Your task to perform on an android device: move an email to a new category in the gmail app Image 0: 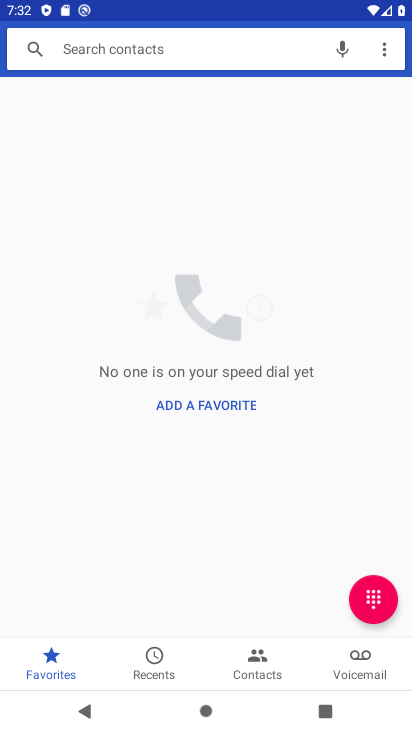
Step 0: press home button
Your task to perform on an android device: move an email to a new category in the gmail app Image 1: 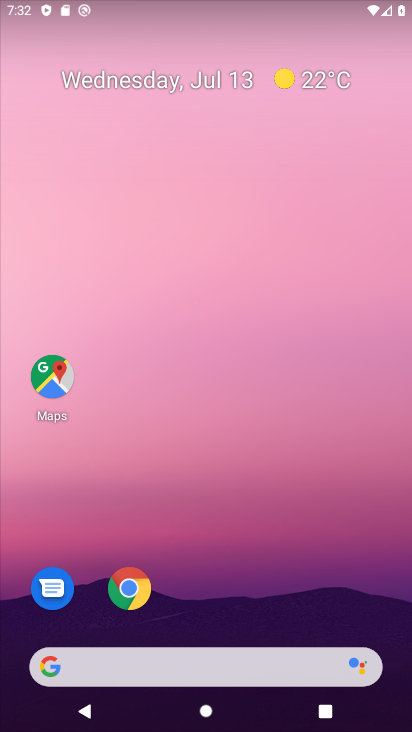
Step 1: drag from (223, 620) to (244, 293)
Your task to perform on an android device: move an email to a new category in the gmail app Image 2: 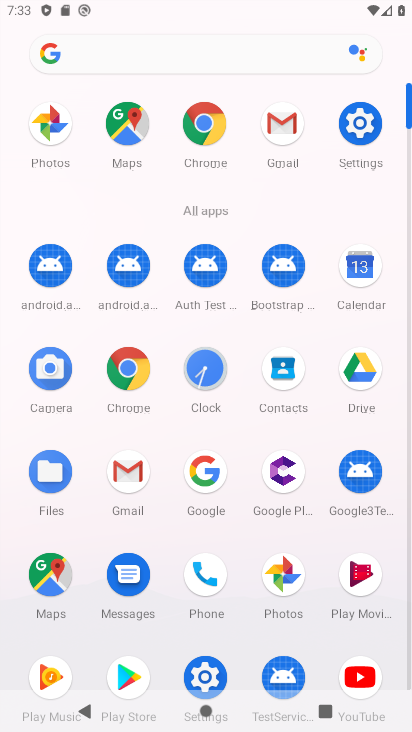
Step 2: click (279, 110)
Your task to perform on an android device: move an email to a new category in the gmail app Image 3: 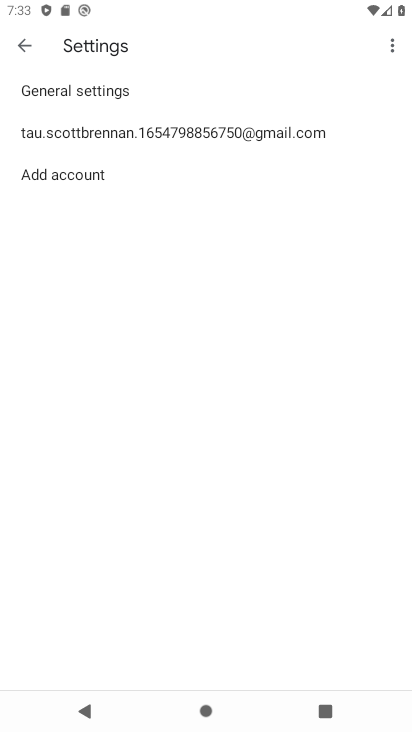
Step 3: click (21, 40)
Your task to perform on an android device: move an email to a new category in the gmail app Image 4: 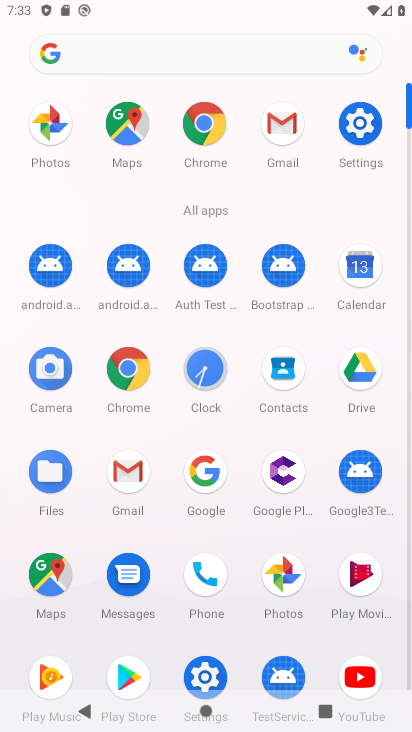
Step 4: click (282, 119)
Your task to perform on an android device: move an email to a new category in the gmail app Image 5: 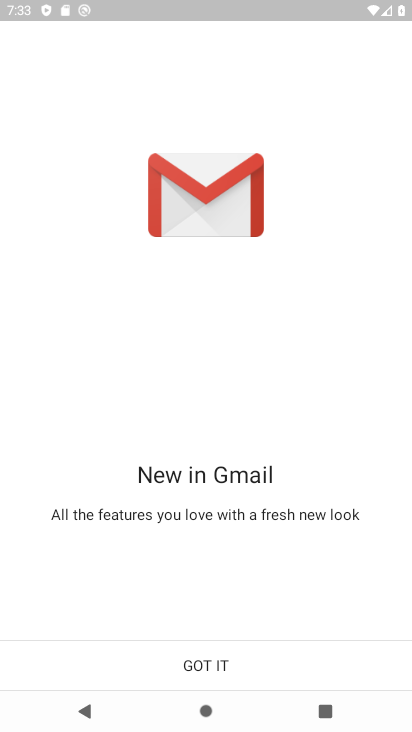
Step 5: click (215, 668)
Your task to perform on an android device: move an email to a new category in the gmail app Image 6: 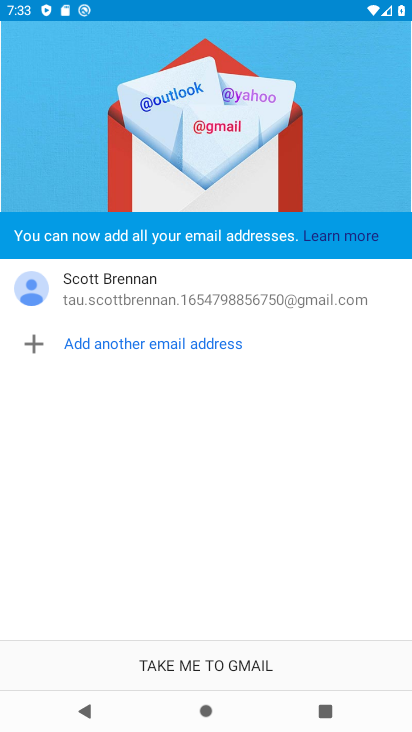
Step 6: click (215, 668)
Your task to perform on an android device: move an email to a new category in the gmail app Image 7: 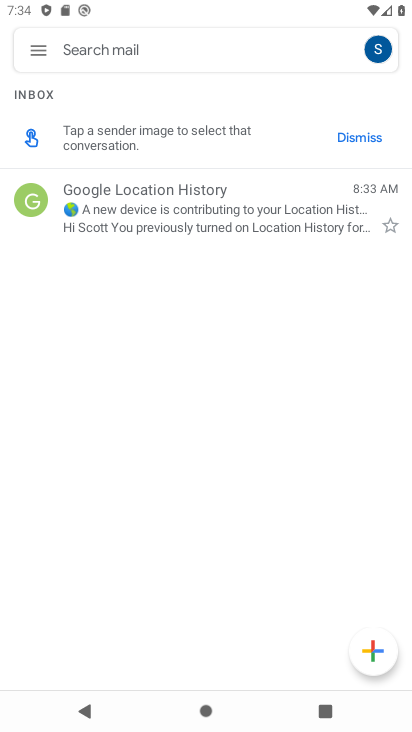
Step 7: click (144, 209)
Your task to perform on an android device: move an email to a new category in the gmail app Image 8: 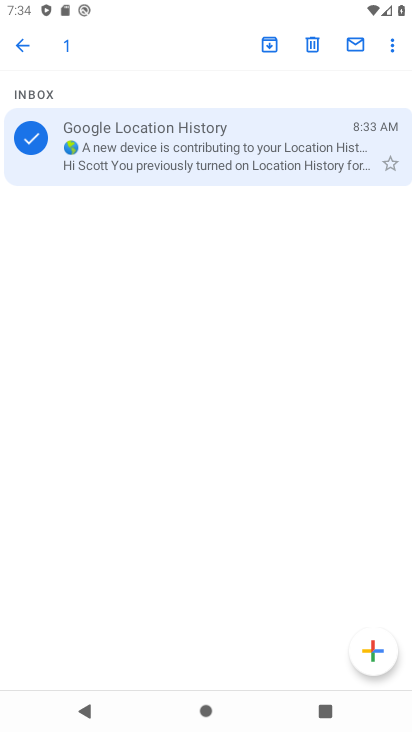
Step 8: click (398, 44)
Your task to perform on an android device: move an email to a new category in the gmail app Image 9: 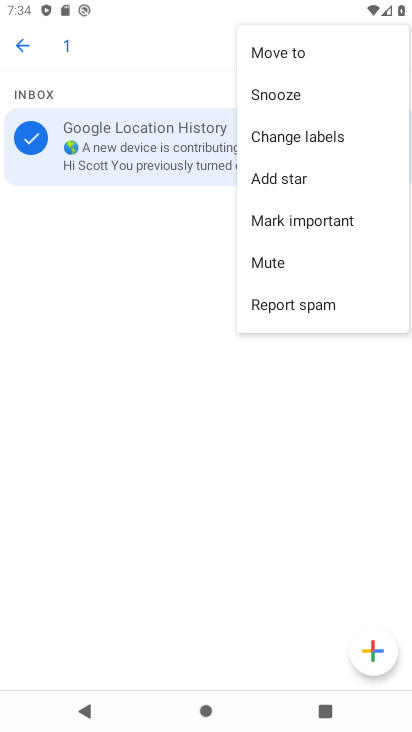
Step 9: click (290, 45)
Your task to perform on an android device: move an email to a new category in the gmail app Image 10: 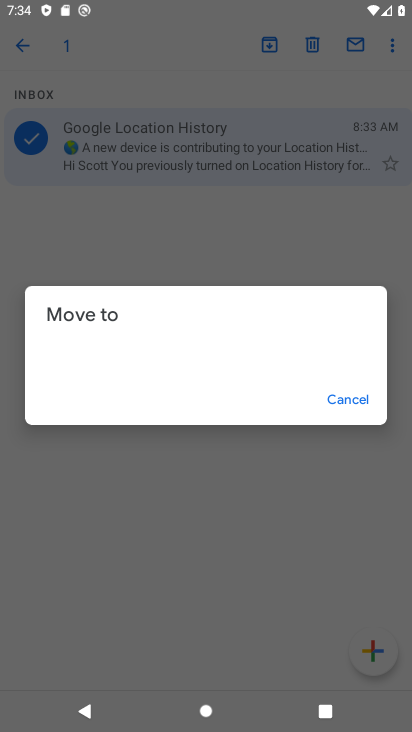
Step 10: click (350, 400)
Your task to perform on an android device: move an email to a new category in the gmail app Image 11: 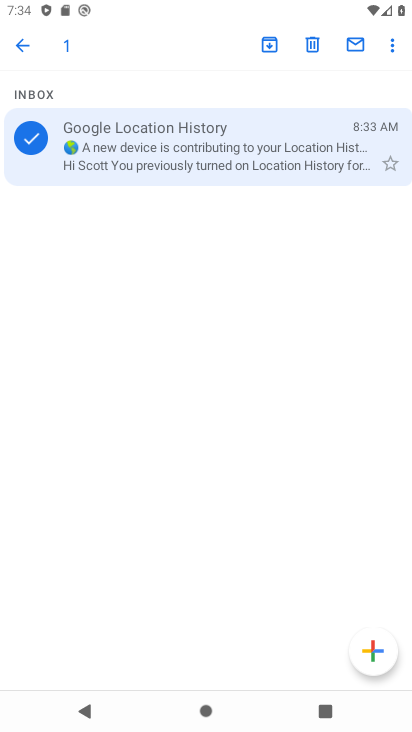
Step 11: task complete